Your task to perform on an android device: manage bookmarks in the chrome app Image 0: 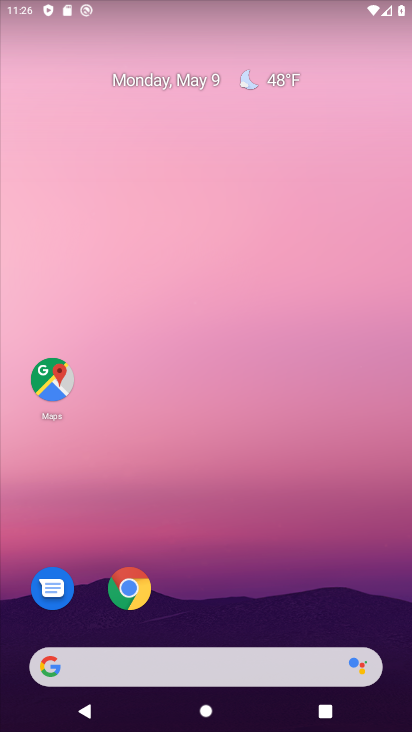
Step 0: click (330, 123)
Your task to perform on an android device: manage bookmarks in the chrome app Image 1: 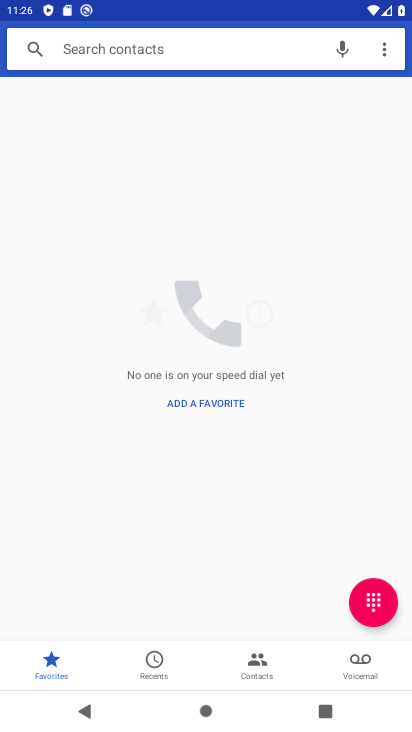
Step 1: press home button
Your task to perform on an android device: manage bookmarks in the chrome app Image 2: 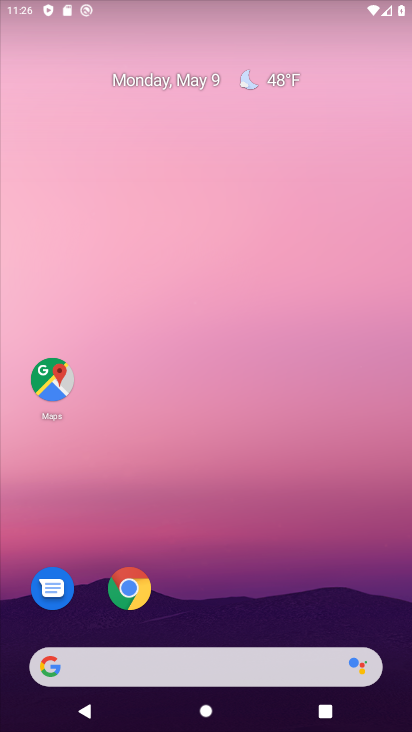
Step 2: drag from (239, 530) to (280, 122)
Your task to perform on an android device: manage bookmarks in the chrome app Image 3: 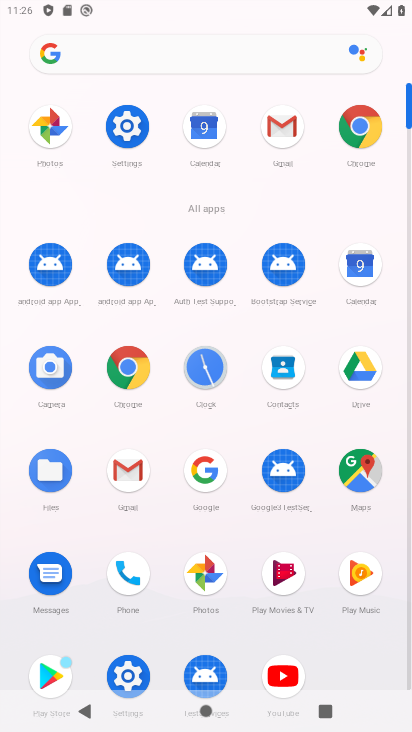
Step 3: click (361, 128)
Your task to perform on an android device: manage bookmarks in the chrome app Image 4: 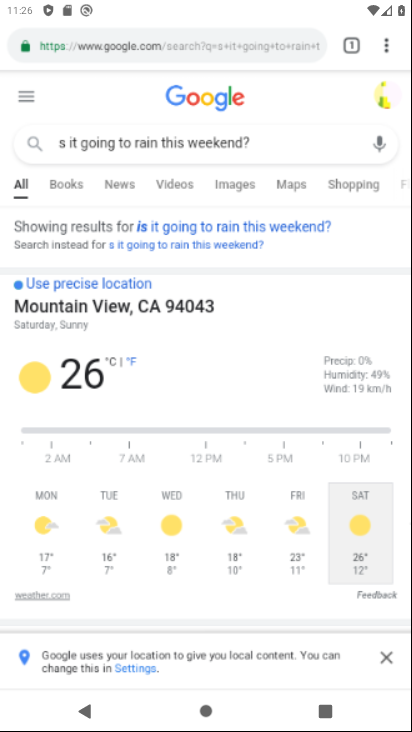
Step 4: click (396, 47)
Your task to perform on an android device: manage bookmarks in the chrome app Image 5: 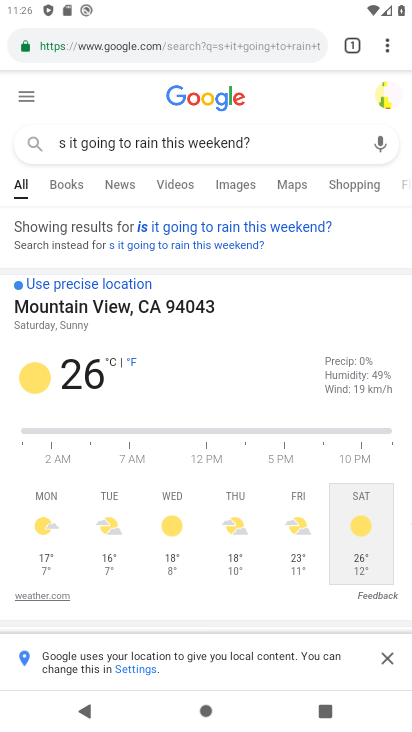
Step 5: click (382, 36)
Your task to perform on an android device: manage bookmarks in the chrome app Image 6: 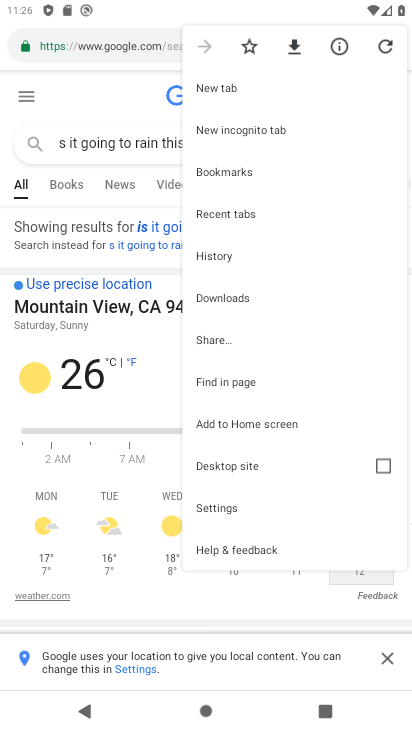
Step 6: click (271, 174)
Your task to perform on an android device: manage bookmarks in the chrome app Image 7: 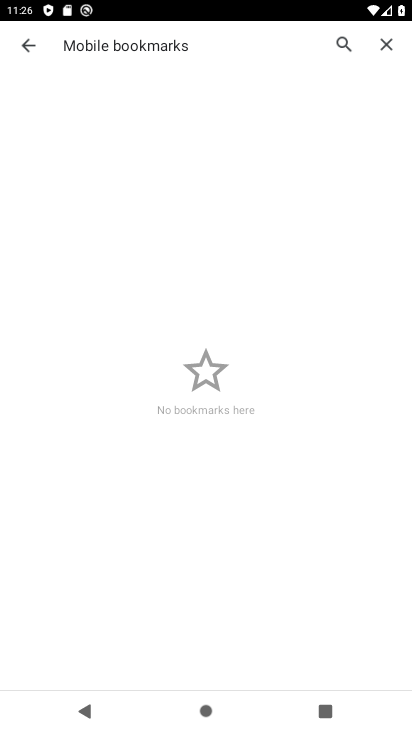
Step 7: task complete